Your task to perform on an android device: Go to Google maps Image 0: 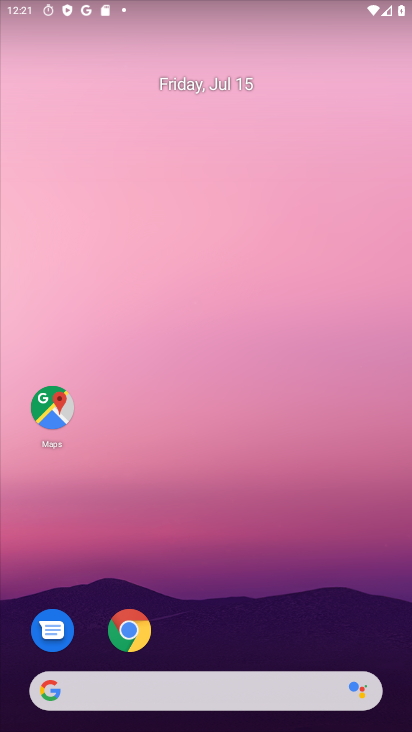
Step 0: drag from (145, 642) to (187, 287)
Your task to perform on an android device: Go to Google maps Image 1: 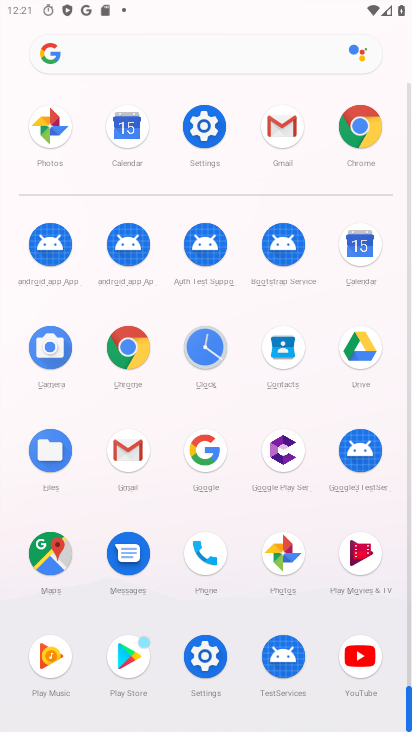
Step 1: click (54, 540)
Your task to perform on an android device: Go to Google maps Image 2: 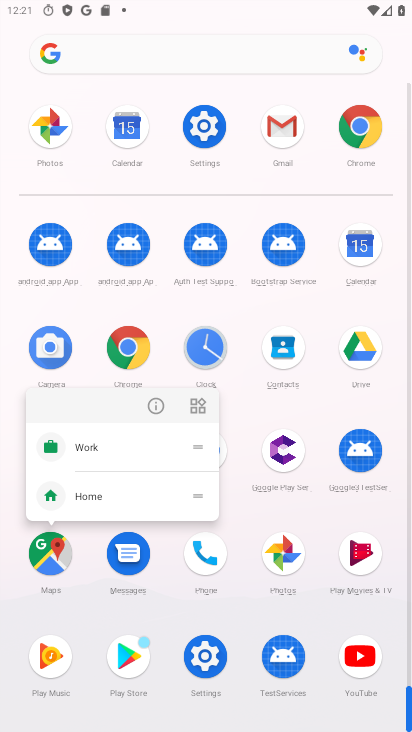
Step 2: click (153, 406)
Your task to perform on an android device: Go to Google maps Image 3: 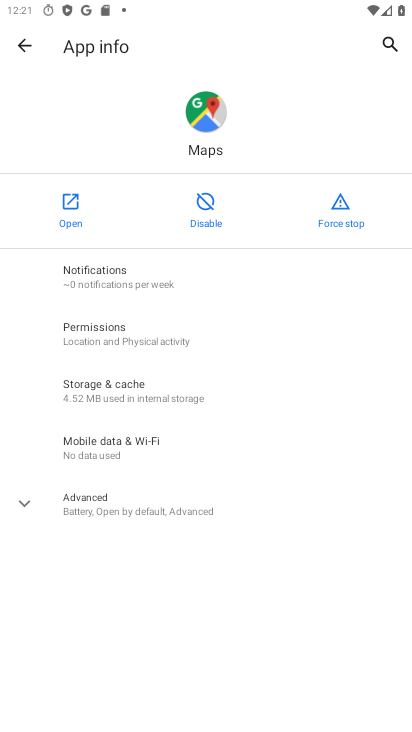
Step 3: click (62, 211)
Your task to perform on an android device: Go to Google maps Image 4: 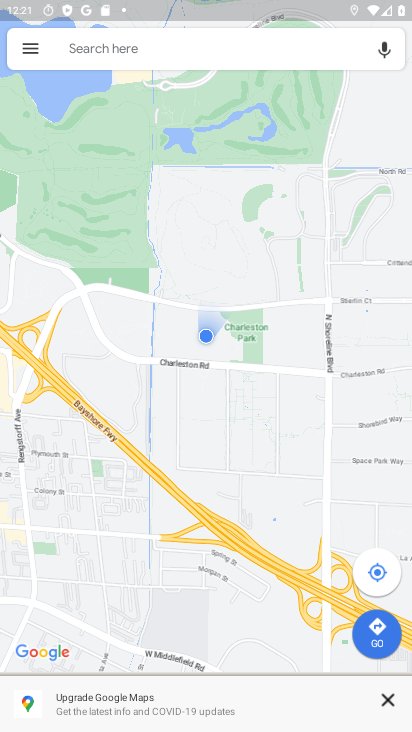
Step 4: task complete